Your task to perform on an android device: empty trash in google photos Image 0: 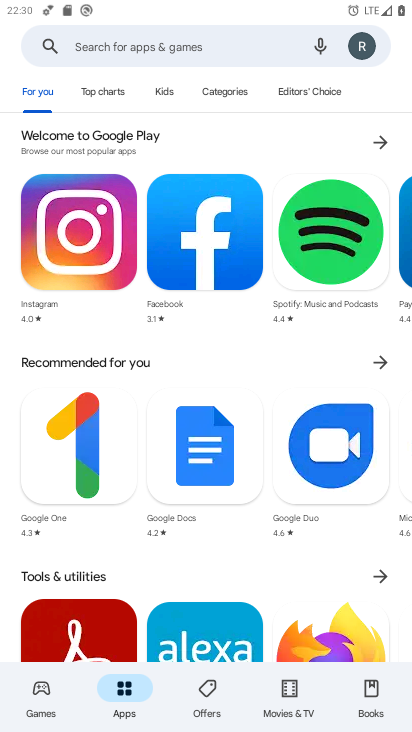
Step 0: press home button
Your task to perform on an android device: empty trash in google photos Image 1: 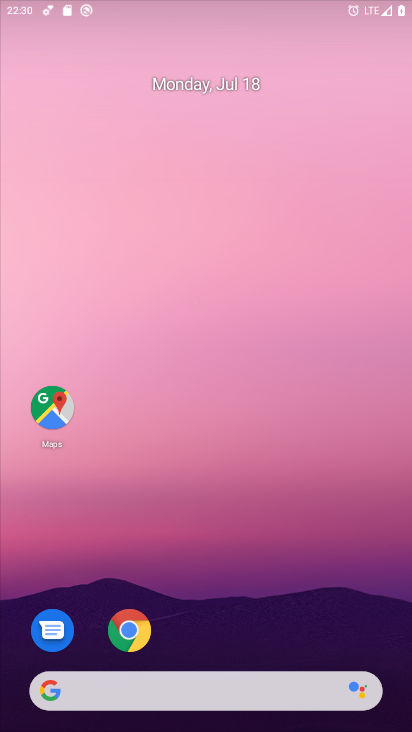
Step 1: drag from (162, 590) to (188, 113)
Your task to perform on an android device: empty trash in google photos Image 2: 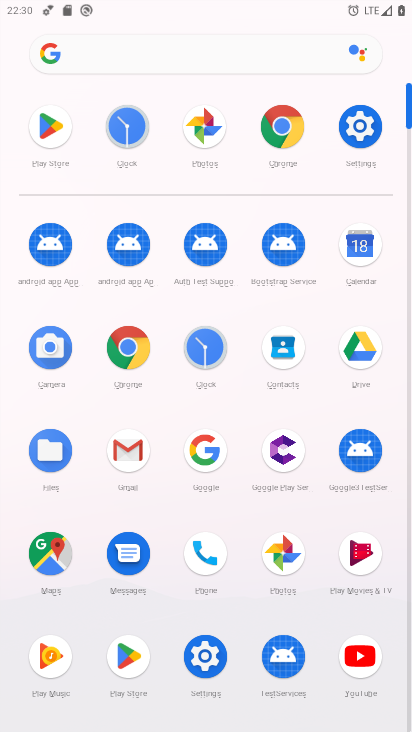
Step 2: click (276, 547)
Your task to perform on an android device: empty trash in google photos Image 3: 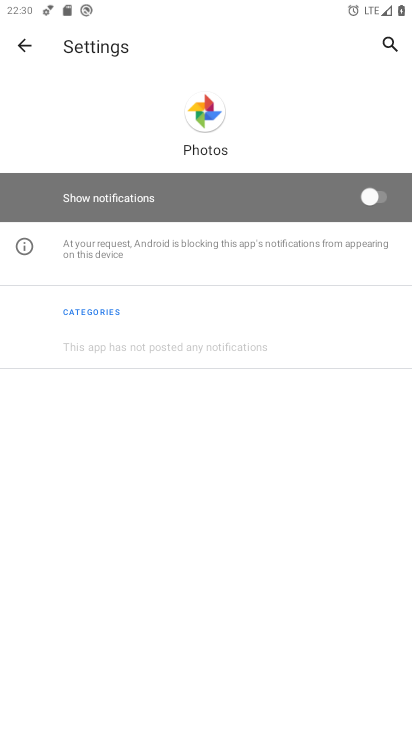
Step 3: click (34, 45)
Your task to perform on an android device: empty trash in google photos Image 4: 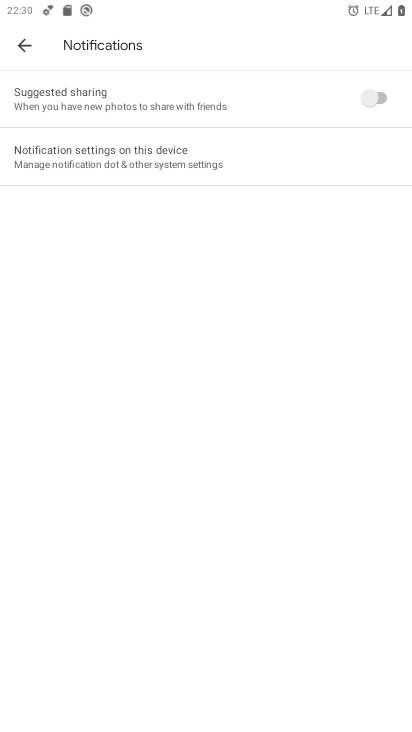
Step 4: click (34, 45)
Your task to perform on an android device: empty trash in google photos Image 5: 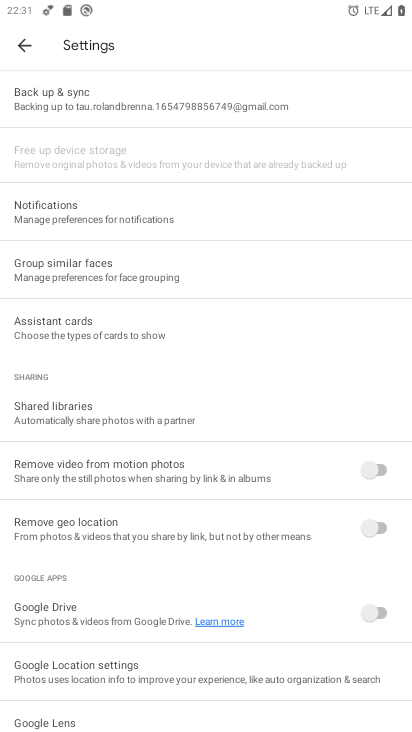
Step 5: drag from (73, 112) to (114, 315)
Your task to perform on an android device: empty trash in google photos Image 6: 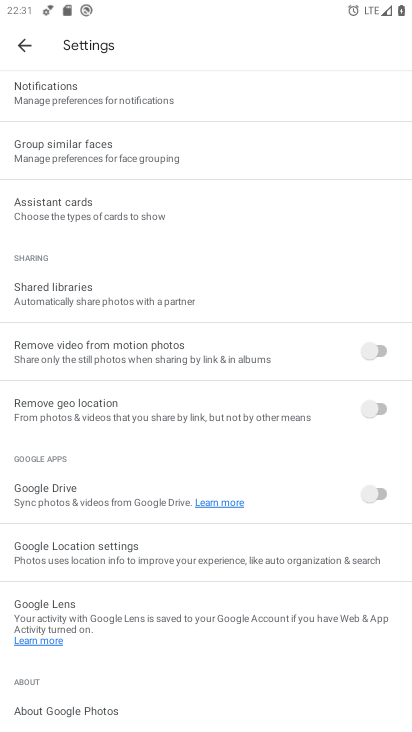
Step 6: click (32, 42)
Your task to perform on an android device: empty trash in google photos Image 7: 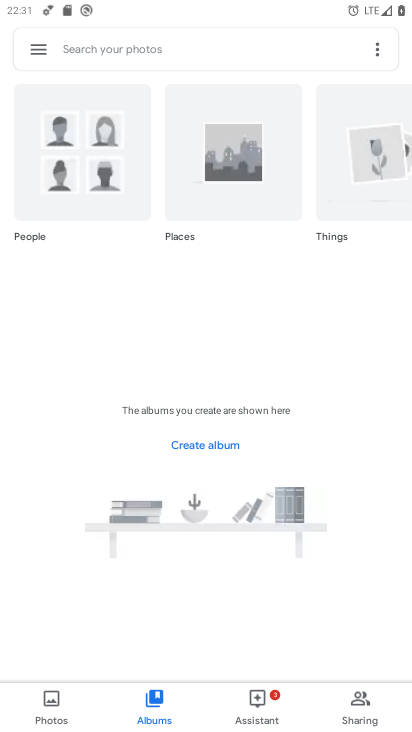
Step 7: click (34, 44)
Your task to perform on an android device: empty trash in google photos Image 8: 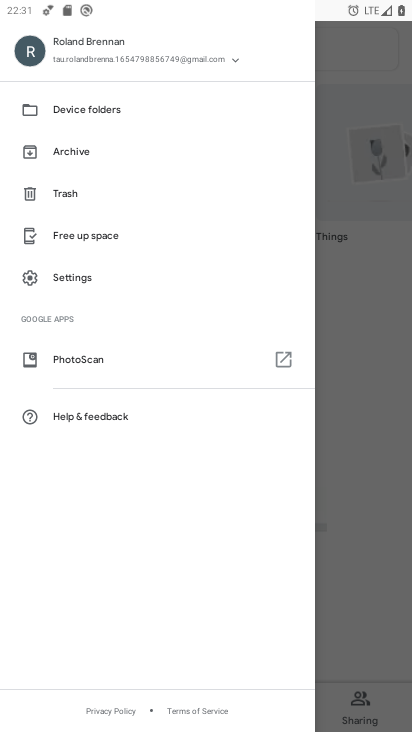
Step 8: click (83, 191)
Your task to perform on an android device: empty trash in google photos Image 9: 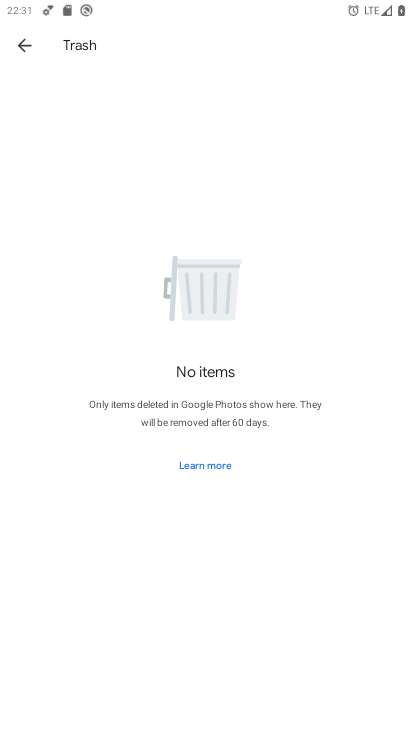
Step 9: task complete